Your task to perform on an android device: star an email in the gmail app Image 0: 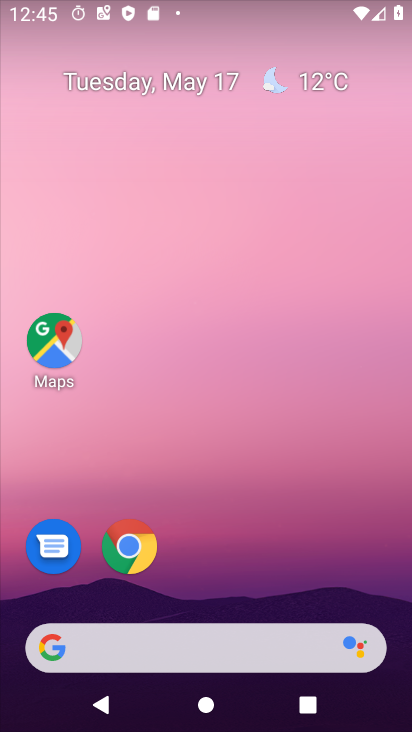
Step 0: drag from (134, 589) to (298, 148)
Your task to perform on an android device: star an email in the gmail app Image 1: 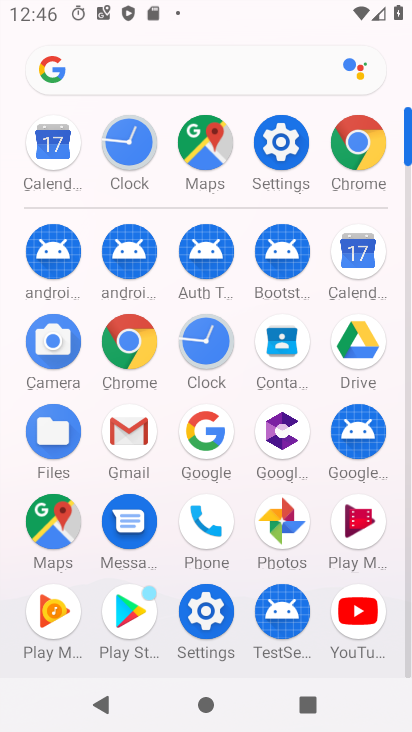
Step 1: click (126, 444)
Your task to perform on an android device: star an email in the gmail app Image 2: 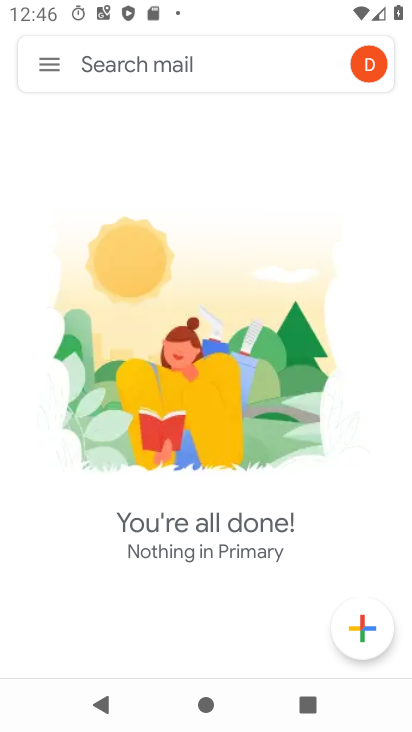
Step 2: task complete